Your task to perform on an android device: Open the Play Movies app and select the watchlist tab. Image 0: 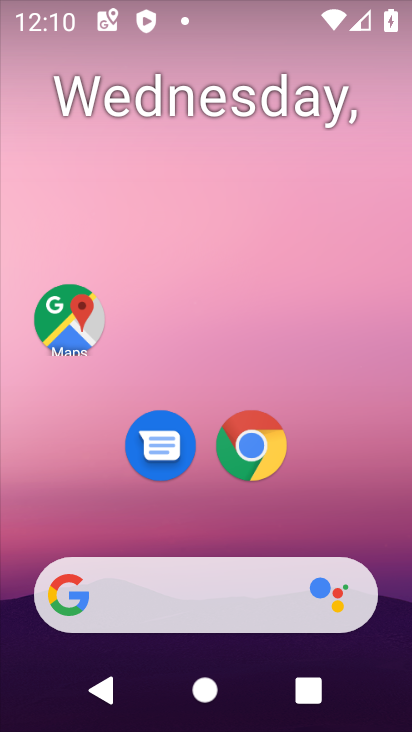
Step 0: drag from (347, 46) to (357, 3)
Your task to perform on an android device: Open the Play Movies app and select the watchlist tab. Image 1: 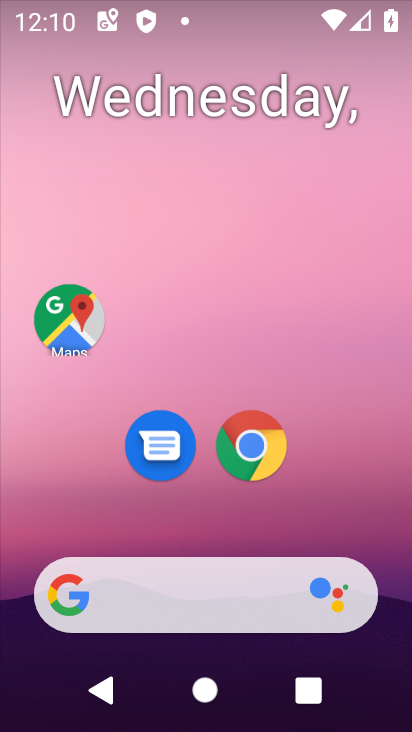
Step 1: drag from (346, 357) to (375, 131)
Your task to perform on an android device: Open the Play Movies app and select the watchlist tab. Image 2: 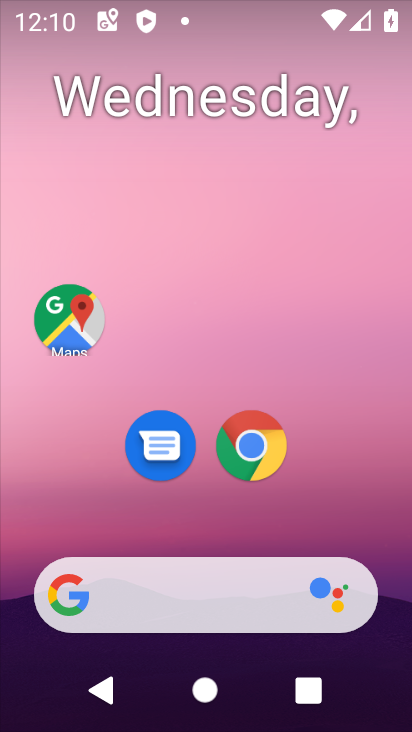
Step 2: drag from (362, 473) to (328, 90)
Your task to perform on an android device: Open the Play Movies app and select the watchlist tab. Image 3: 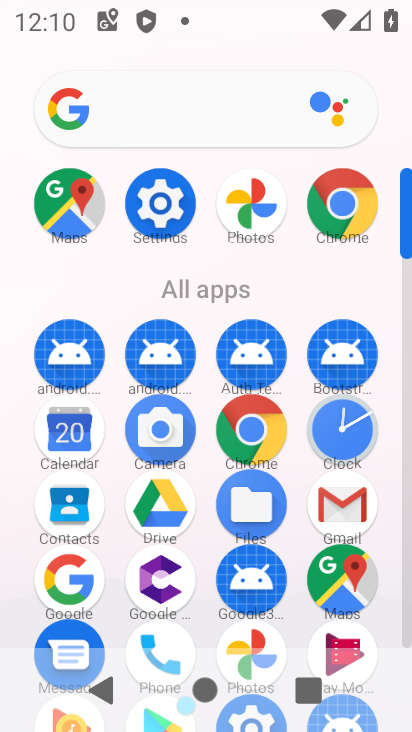
Step 3: drag from (303, 610) to (327, 337)
Your task to perform on an android device: Open the Play Movies app and select the watchlist tab. Image 4: 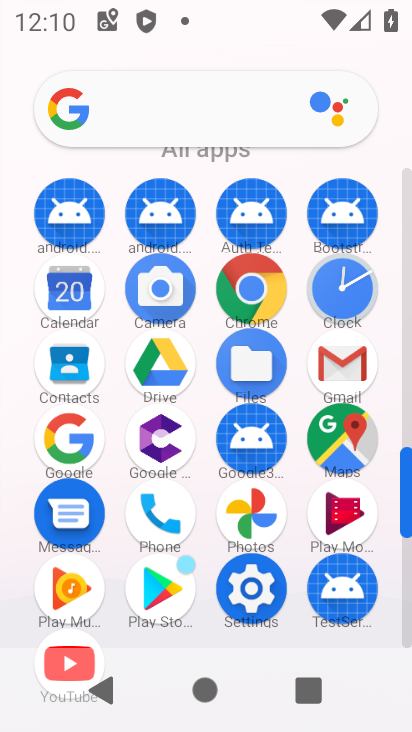
Step 4: click (341, 511)
Your task to perform on an android device: Open the Play Movies app and select the watchlist tab. Image 5: 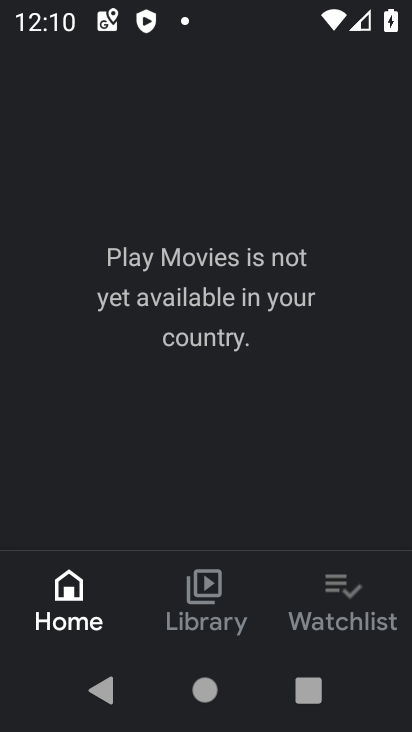
Step 5: click (331, 589)
Your task to perform on an android device: Open the Play Movies app and select the watchlist tab. Image 6: 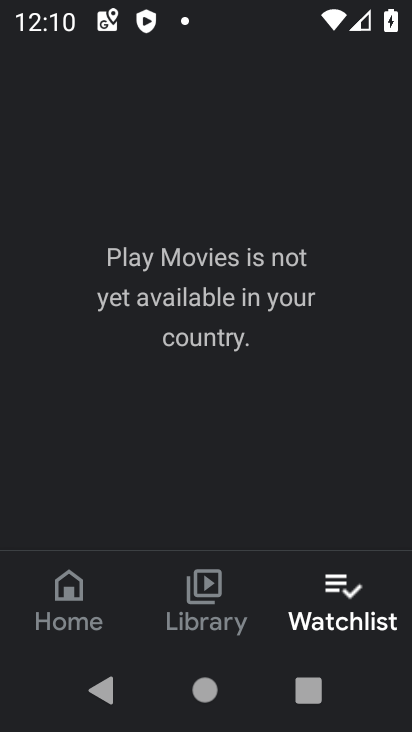
Step 6: task complete